Your task to perform on an android device: change notification settings in the gmail app Image 0: 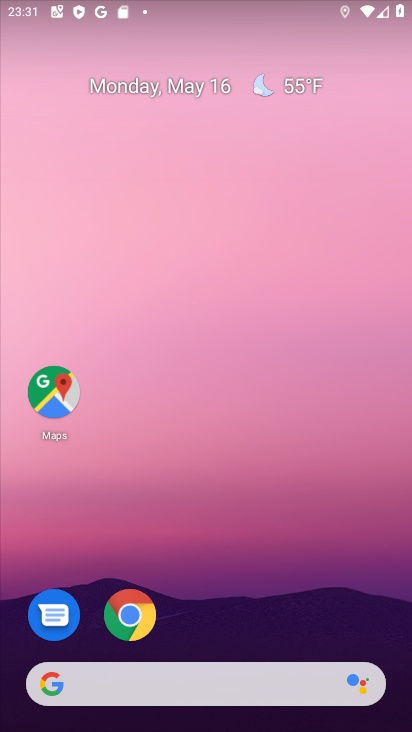
Step 0: drag from (253, 662) to (141, 140)
Your task to perform on an android device: change notification settings in the gmail app Image 1: 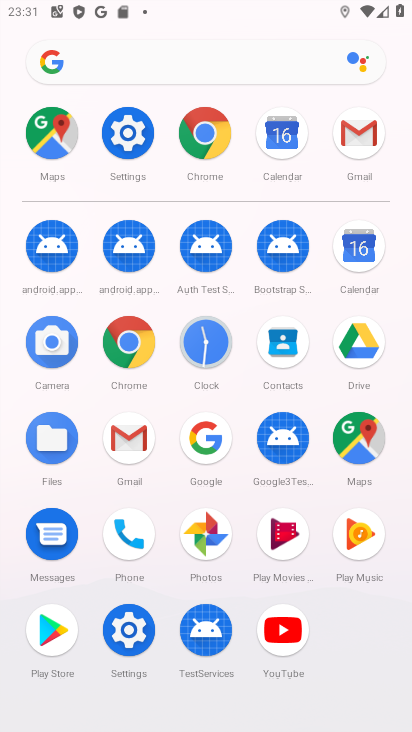
Step 1: click (140, 439)
Your task to perform on an android device: change notification settings in the gmail app Image 2: 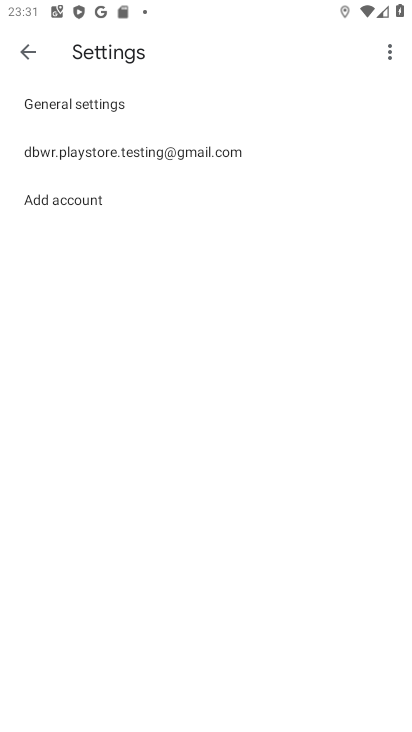
Step 2: click (58, 114)
Your task to perform on an android device: change notification settings in the gmail app Image 3: 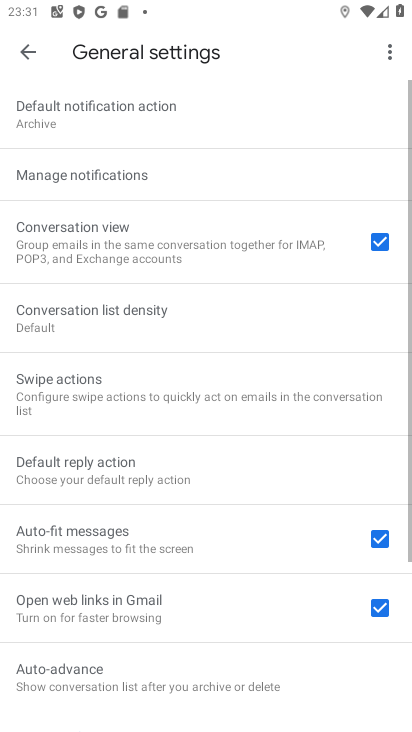
Step 3: click (111, 180)
Your task to perform on an android device: change notification settings in the gmail app Image 4: 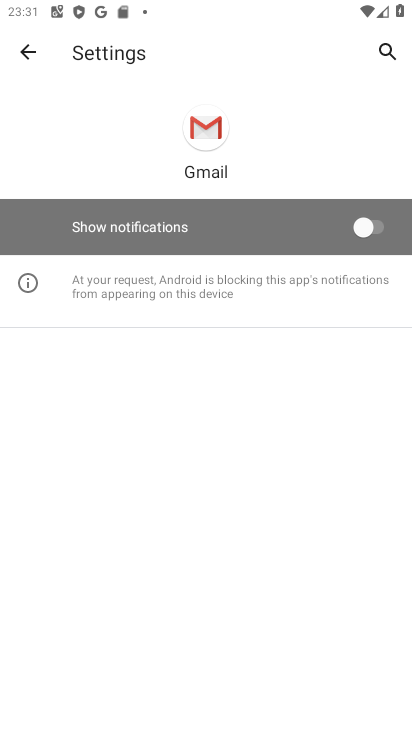
Step 4: click (360, 231)
Your task to perform on an android device: change notification settings in the gmail app Image 5: 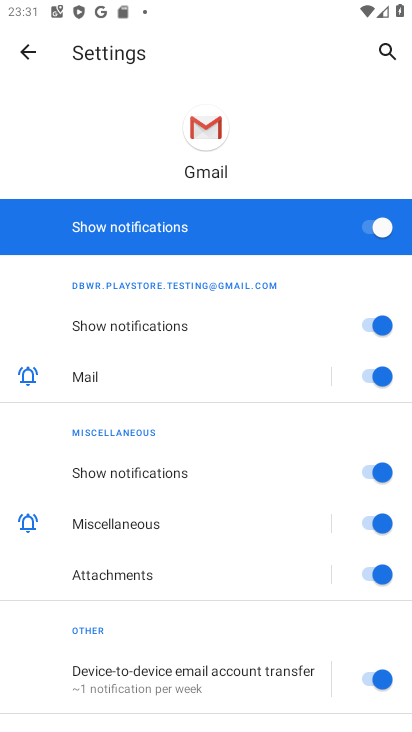
Step 5: task complete